Your task to perform on an android device: install app "Google Play Music" Image 0: 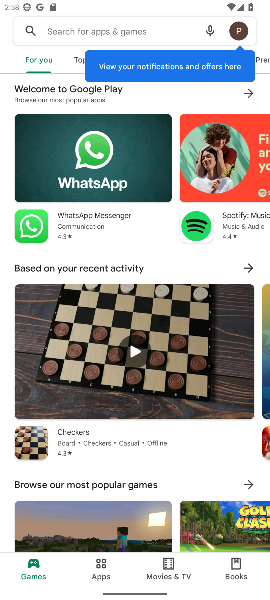
Step 0: press home button
Your task to perform on an android device: install app "Google Play Music" Image 1: 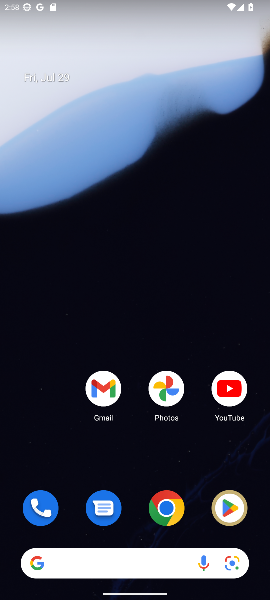
Step 1: click (228, 520)
Your task to perform on an android device: install app "Google Play Music" Image 2: 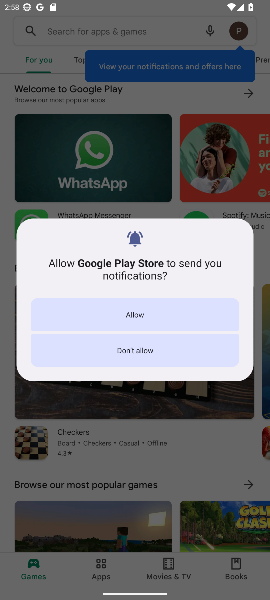
Step 2: click (152, 307)
Your task to perform on an android device: install app "Google Play Music" Image 3: 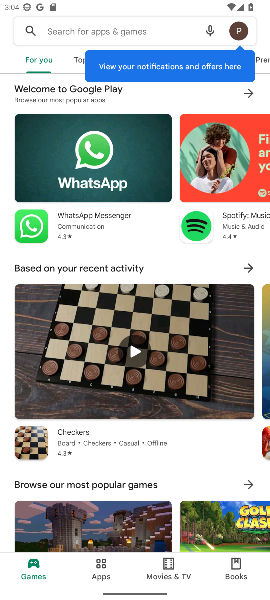
Step 3: click (84, 30)
Your task to perform on an android device: install app "Google Play Music" Image 4: 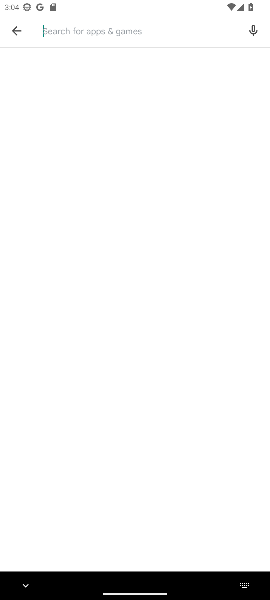
Step 4: type "Google Play Music"
Your task to perform on an android device: install app "Google Play Music" Image 5: 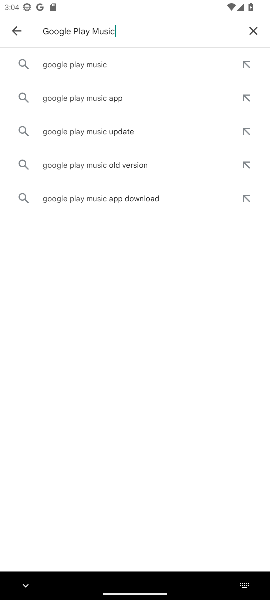
Step 5: click (83, 63)
Your task to perform on an android device: install app "Google Play Music" Image 6: 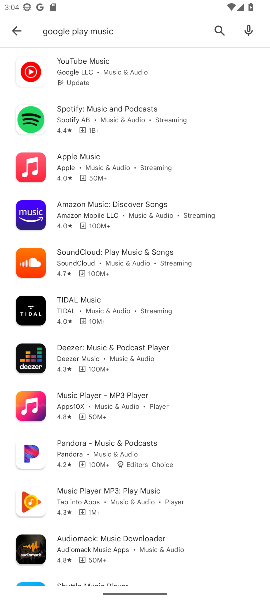
Step 6: task complete